Your task to perform on an android device: Go to notification settings Image 0: 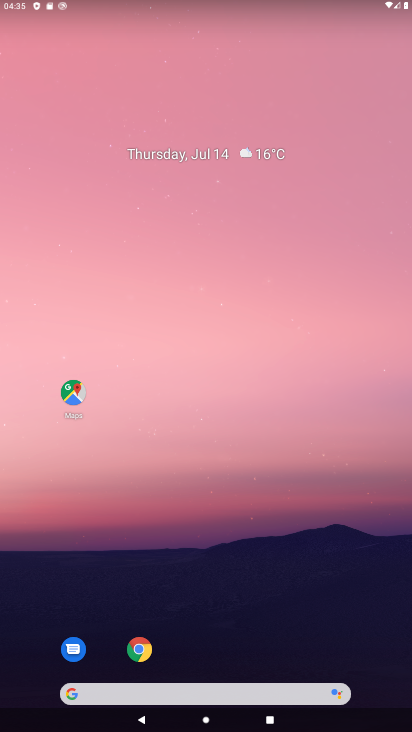
Step 0: drag from (246, 588) to (210, 52)
Your task to perform on an android device: Go to notification settings Image 1: 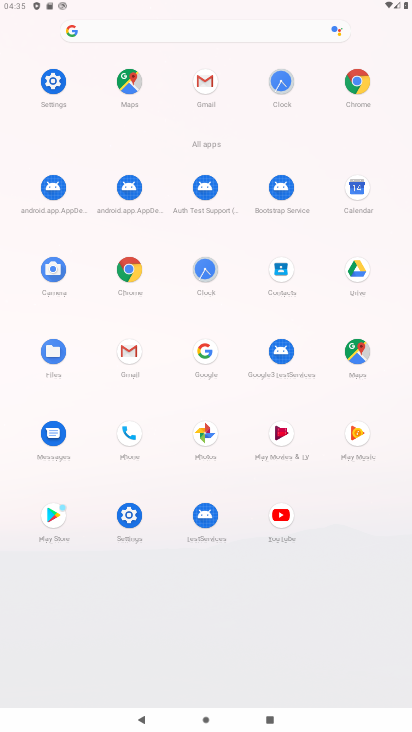
Step 1: click (48, 78)
Your task to perform on an android device: Go to notification settings Image 2: 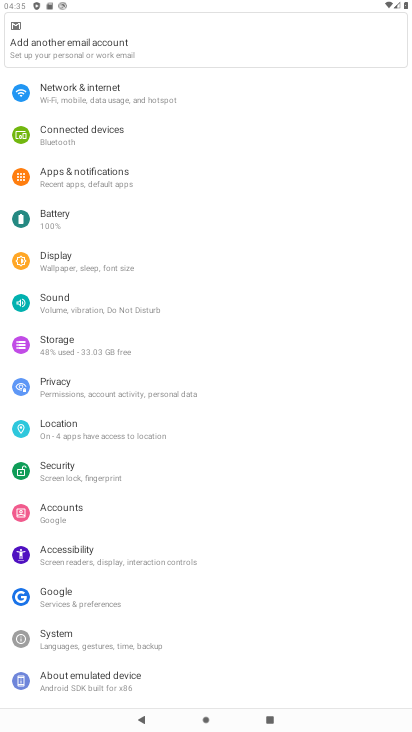
Step 2: click (78, 172)
Your task to perform on an android device: Go to notification settings Image 3: 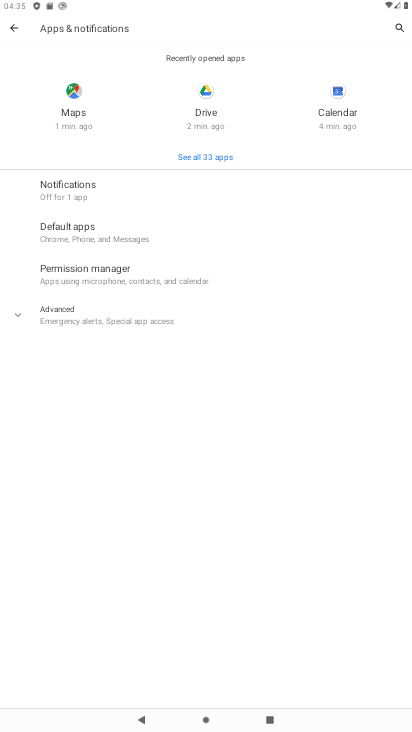
Step 3: click (75, 183)
Your task to perform on an android device: Go to notification settings Image 4: 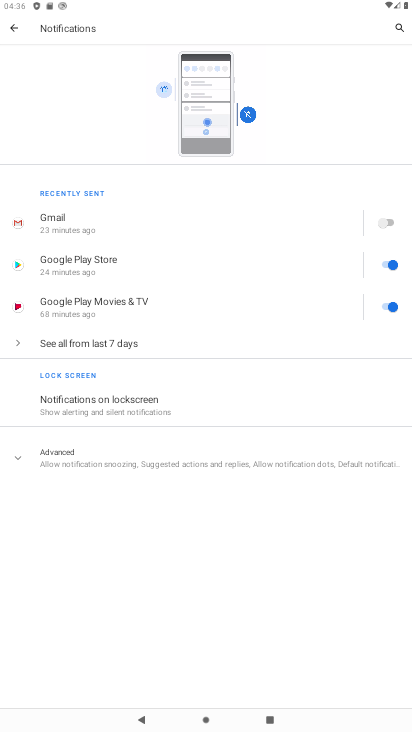
Step 4: task complete